Your task to perform on an android device: turn on wifi Image 0: 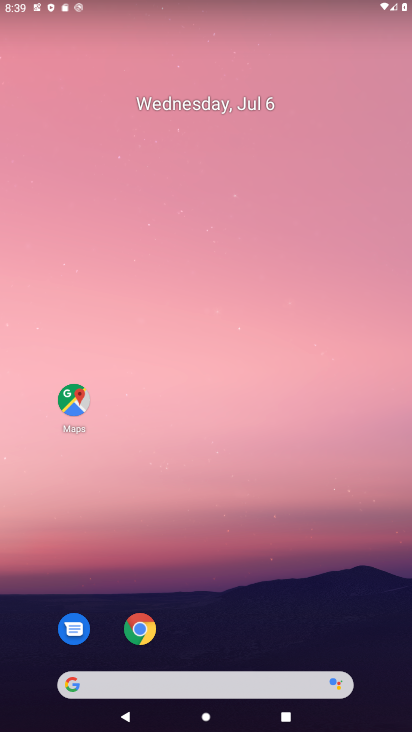
Step 0: drag from (259, 632) to (251, 80)
Your task to perform on an android device: turn on wifi Image 1: 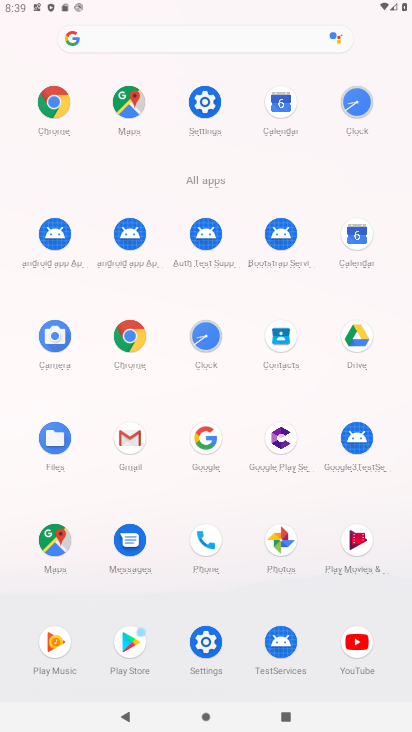
Step 1: click (203, 101)
Your task to perform on an android device: turn on wifi Image 2: 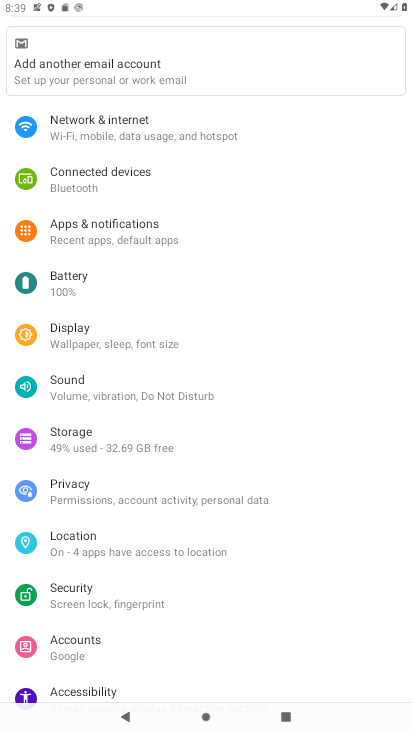
Step 2: click (127, 137)
Your task to perform on an android device: turn on wifi Image 3: 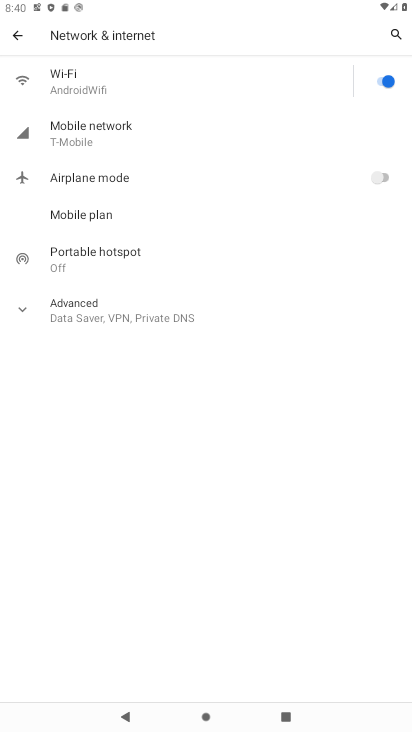
Step 3: task complete